Your task to perform on an android device: turn vacation reply on in the gmail app Image 0: 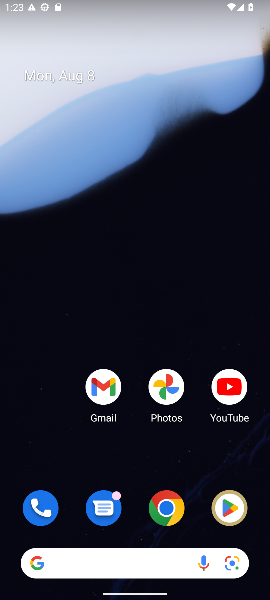
Step 0: drag from (140, 520) to (205, 66)
Your task to perform on an android device: turn vacation reply on in the gmail app Image 1: 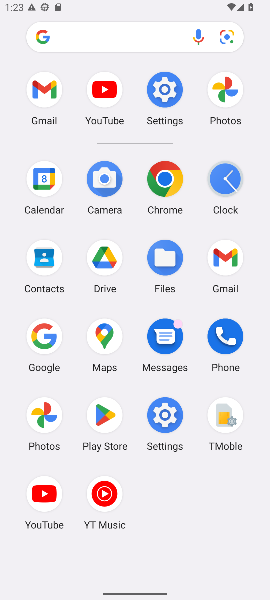
Step 1: click (42, 86)
Your task to perform on an android device: turn vacation reply on in the gmail app Image 2: 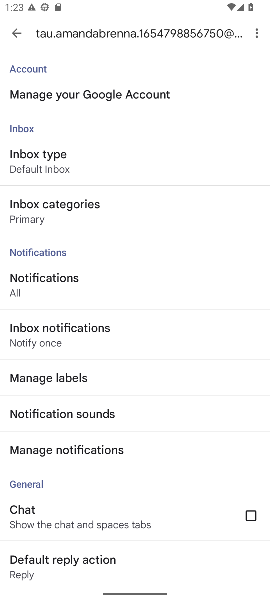
Step 2: drag from (101, 486) to (105, 189)
Your task to perform on an android device: turn vacation reply on in the gmail app Image 3: 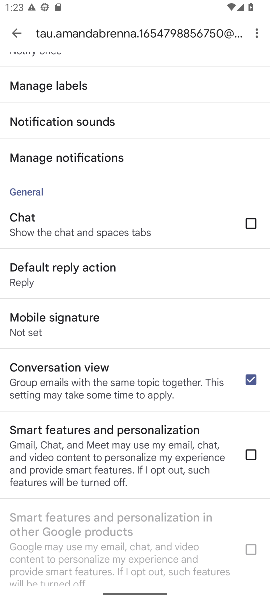
Step 3: drag from (128, 514) to (72, 132)
Your task to perform on an android device: turn vacation reply on in the gmail app Image 4: 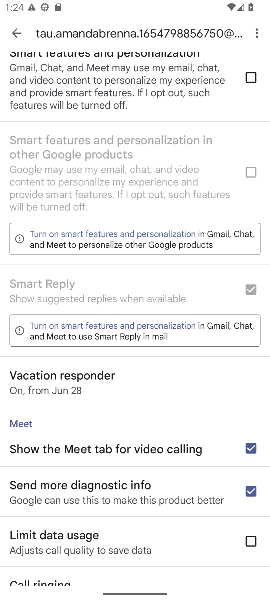
Step 4: click (75, 368)
Your task to perform on an android device: turn vacation reply on in the gmail app Image 5: 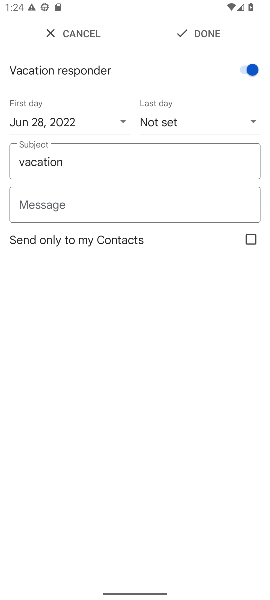
Step 5: click (204, 30)
Your task to perform on an android device: turn vacation reply on in the gmail app Image 6: 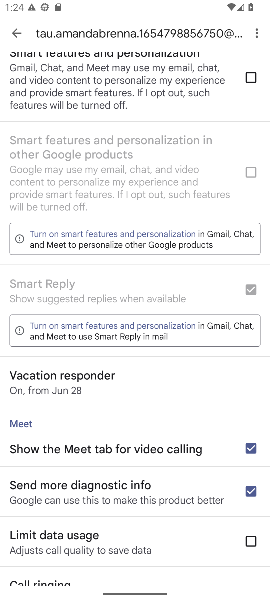
Step 6: task complete